Your task to perform on an android device: turn on translation in the chrome app Image 0: 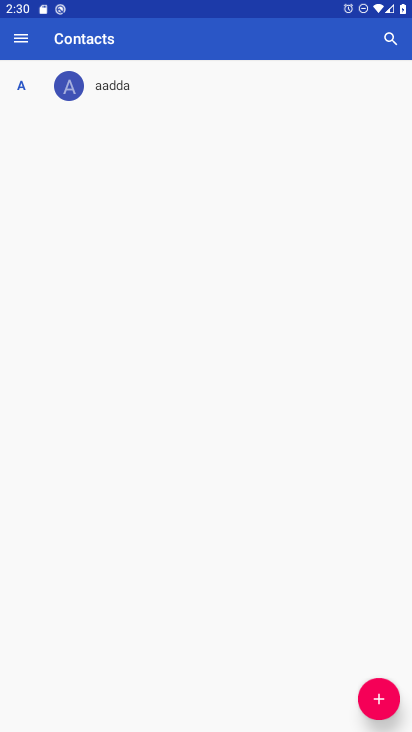
Step 0: press home button
Your task to perform on an android device: turn on translation in the chrome app Image 1: 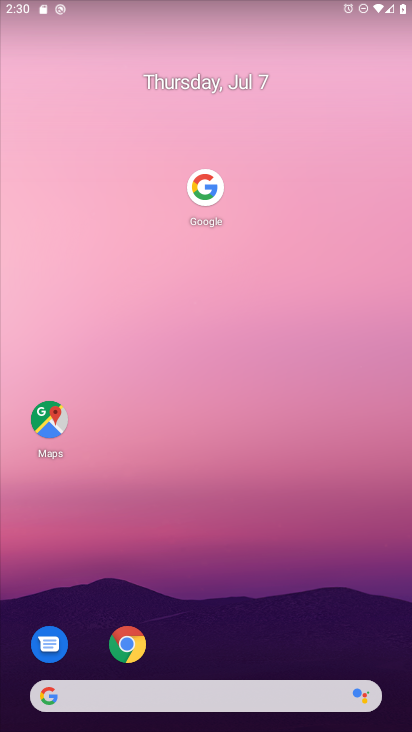
Step 1: click (132, 638)
Your task to perform on an android device: turn on translation in the chrome app Image 2: 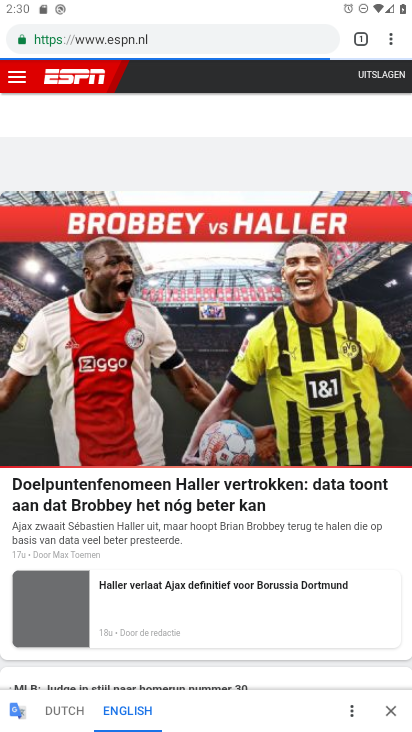
Step 2: drag from (390, 34) to (283, 436)
Your task to perform on an android device: turn on translation in the chrome app Image 3: 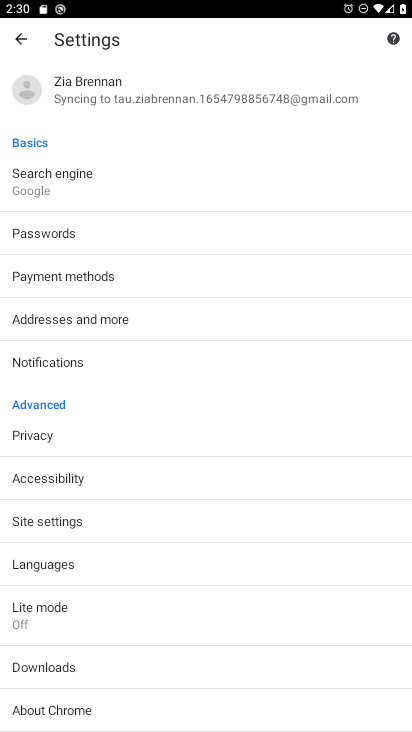
Step 3: click (57, 559)
Your task to perform on an android device: turn on translation in the chrome app Image 4: 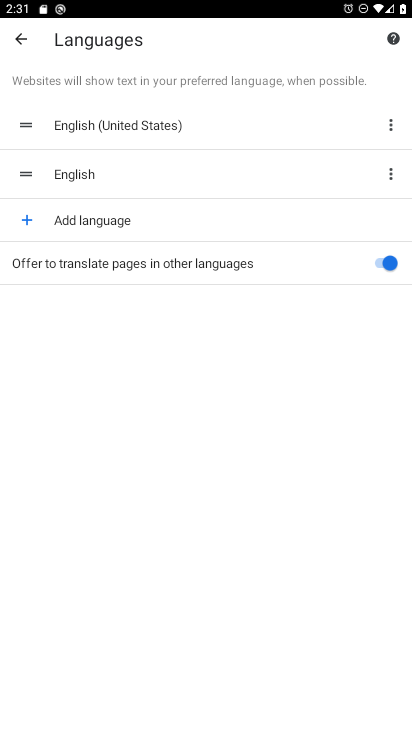
Step 4: task complete